Your task to perform on an android device: Open Chrome and go to the settings page Image 0: 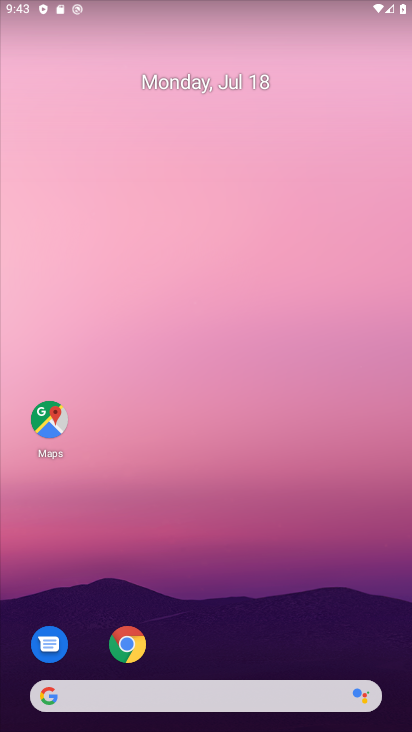
Step 0: click (126, 653)
Your task to perform on an android device: Open Chrome and go to the settings page Image 1: 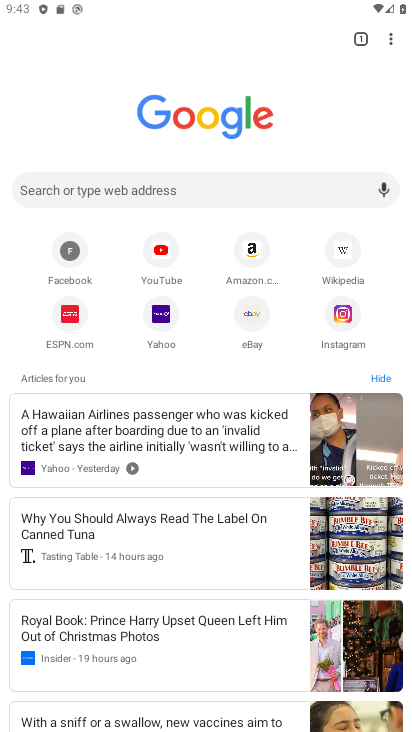
Step 1: task complete